Your task to perform on an android device: Open display settings Image 0: 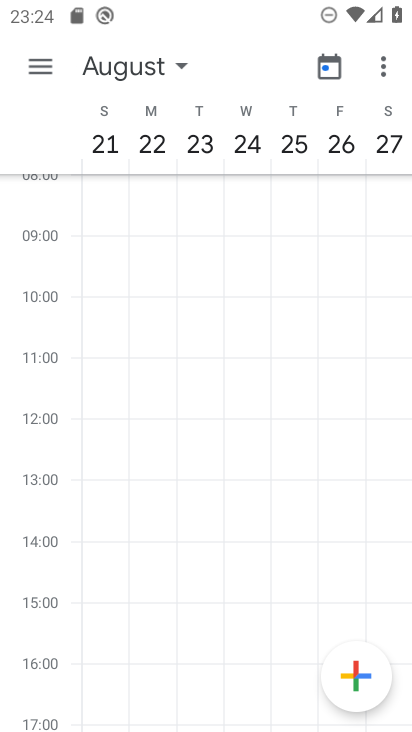
Step 0: press home button
Your task to perform on an android device: Open display settings Image 1: 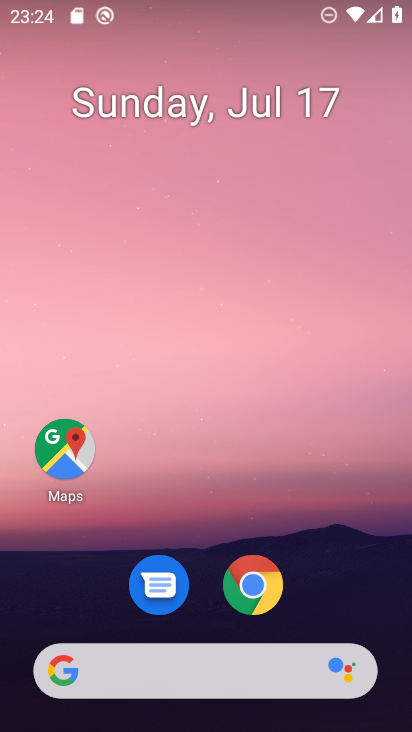
Step 1: drag from (163, 671) to (291, 41)
Your task to perform on an android device: Open display settings Image 2: 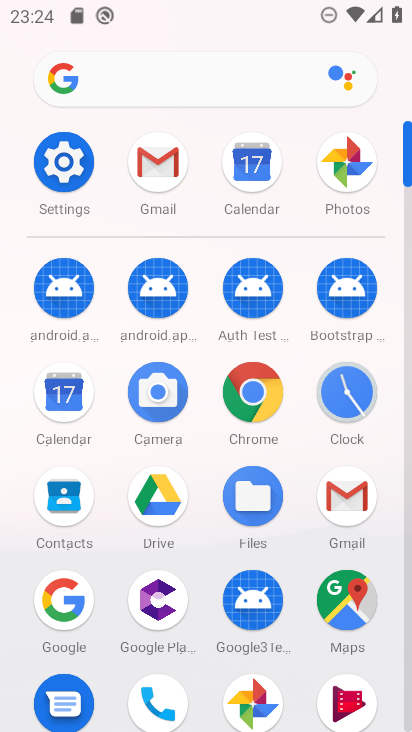
Step 2: click (49, 166)
Your task to perform on an android device: Open display settings Image 3: 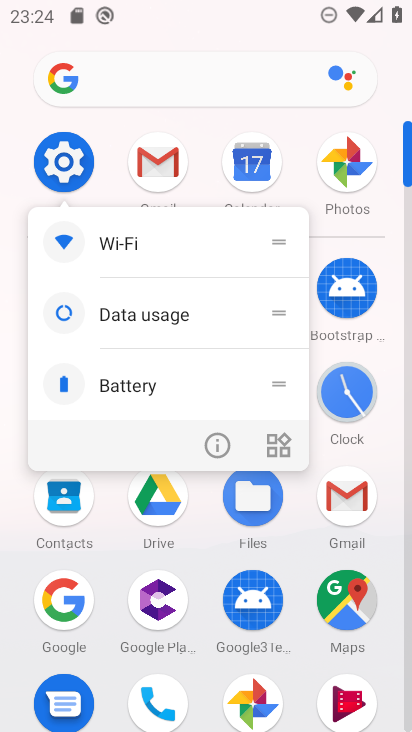
Step 3: click (55, 172)
Your task to perform on an android device: Open display settings Image 4: 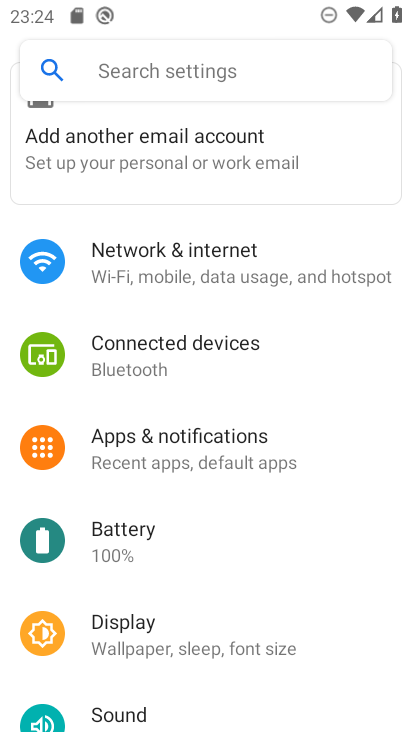
Step 4: click (120, 623)
Your task to perform on an android device: Open display settings Image 5: 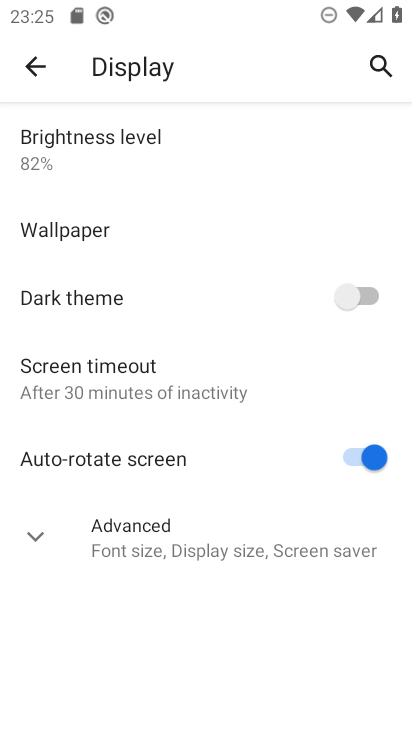
Step 5: task complete